Your task to perform on an android device: Toggle the flashlight Image 0: 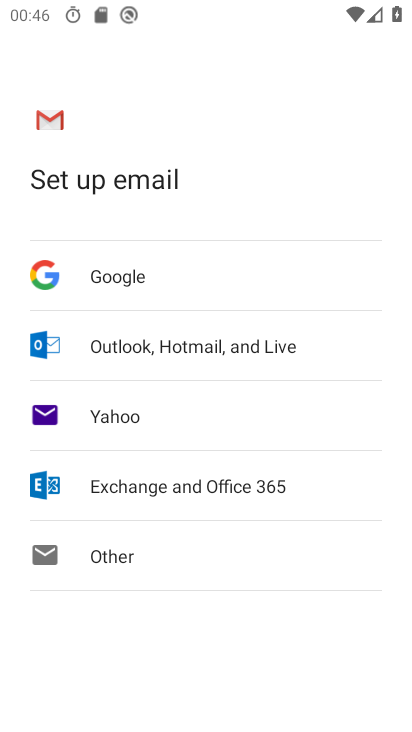
Step 0: press home button
Your task to perform on an android device: Toggle the flashlight Image 1: 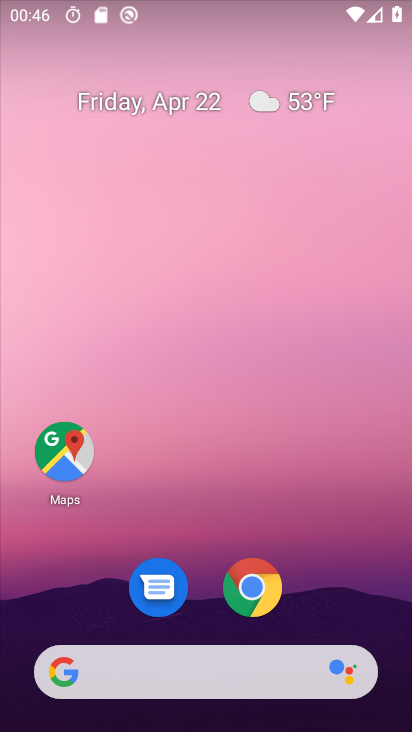
Step 1: drag from (329, 575) to (352, 152)
Your task to perform on an android device: Toggle the flashlight Image 2: 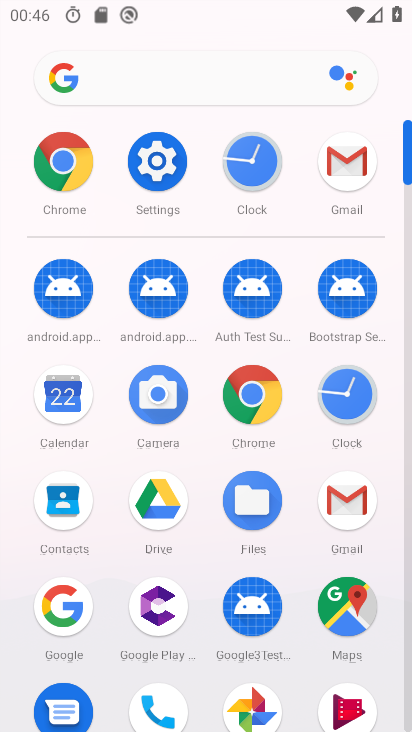
Step 2: click (166, 181)
Your task to perform on an android device: Toggle the flashlight Image 3: 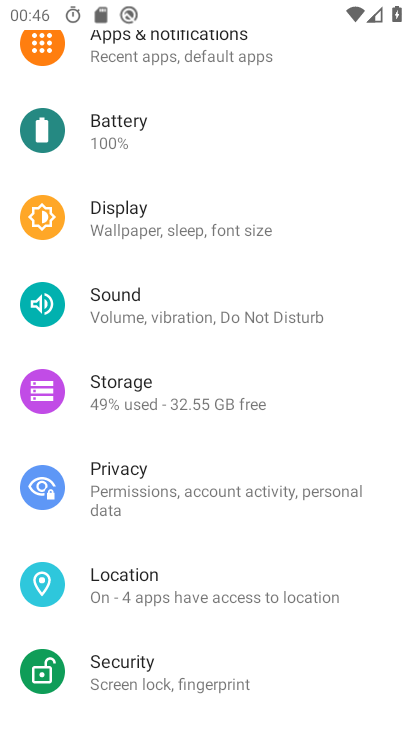
Step 3: drag from (270, 150) to (251, 599)
Your task to perform on an android device: Toggle the flashlight Image 4: 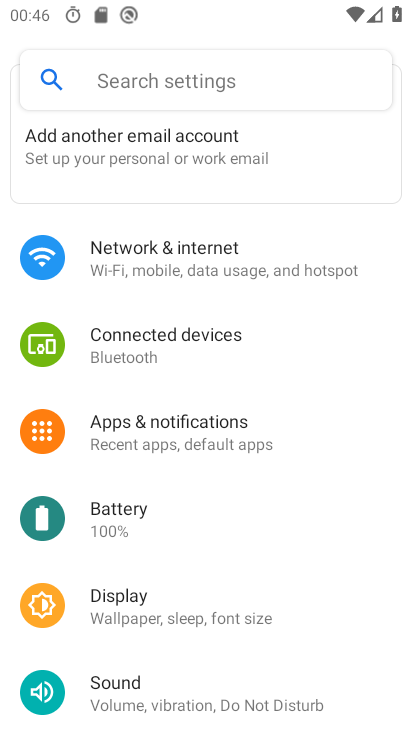
Step 4: click (174, 80)
Your task to perform on an android device: Toggle the flashlight Image 5: 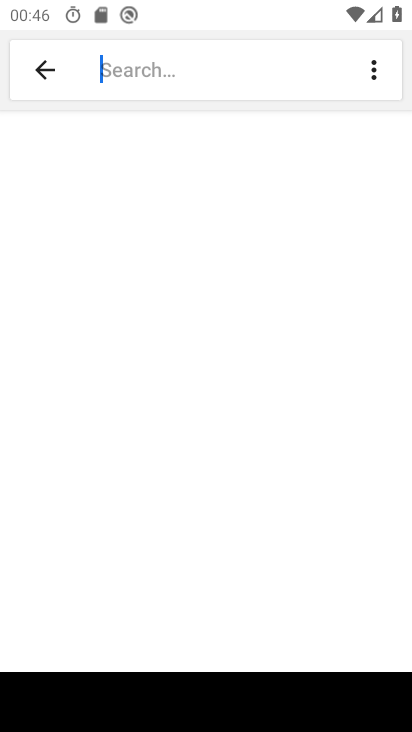
Step 5: type ""
Your task to perform on an android device: Toggle the flashlight Image 6: 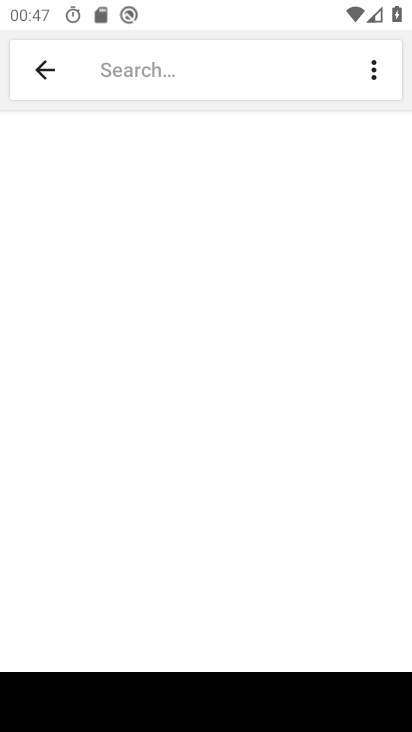
Step 6: type "flashlight"
Your task to perform on an android device: Toggle the flashlight Image 7: 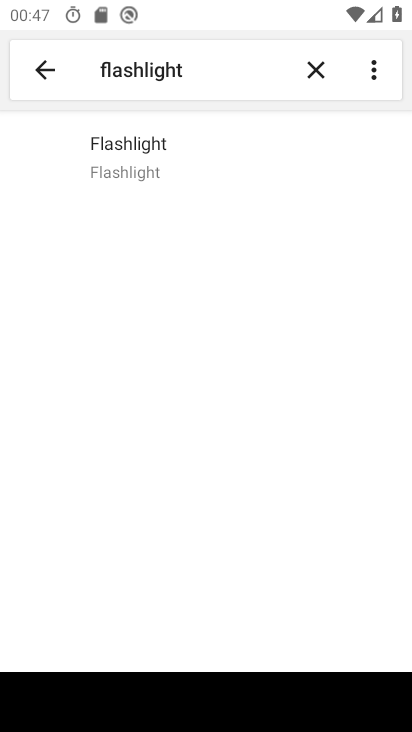
Step 7: click (221, 172)
Your task to perform on an android device: Toggle the flashlight Image 8: 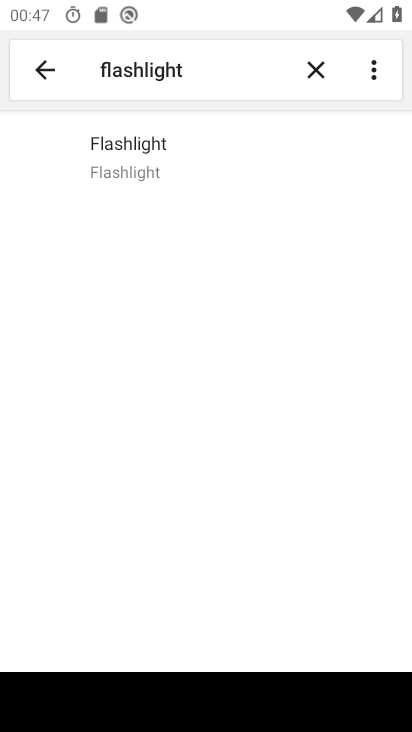
Step 8: task complete